Your task to perform on an android device: Go to settings Image 0: 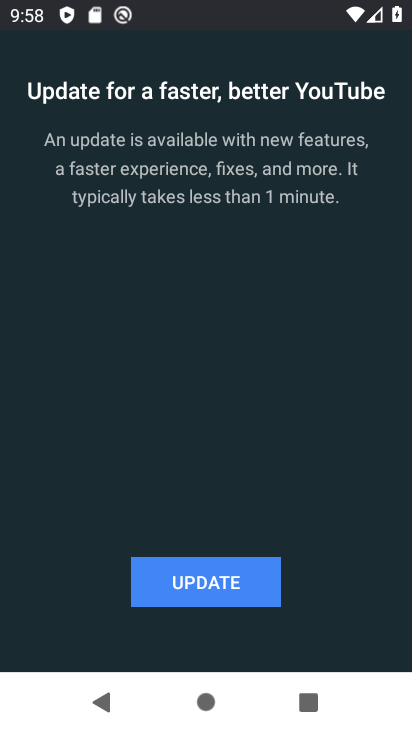
Step 0: press home button
Your task to perform on an android device: Go to settings Image 1: 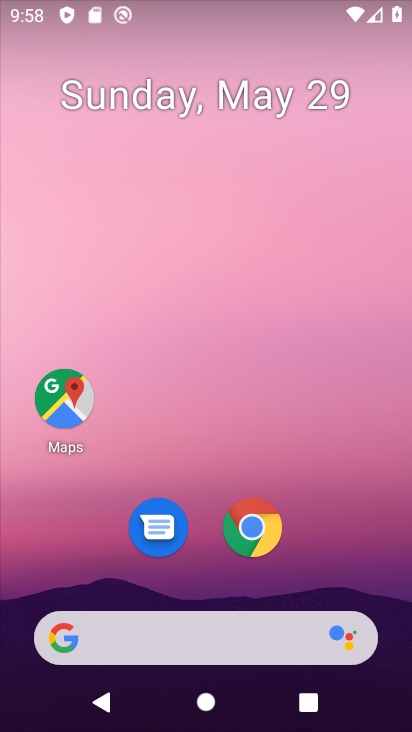
Step 1: drag from (337, 566) to (313, 219)
Your task to perform on an android device: Go to settings Image 2: 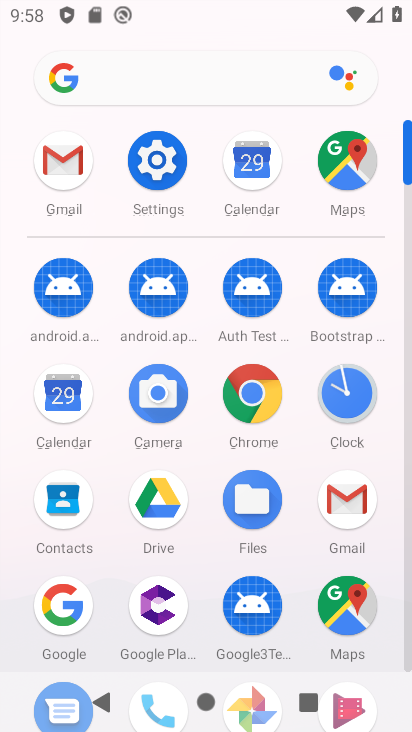
Step 2: click (168, 170)
Your task to perform on an android device: Go to settings Image 3: 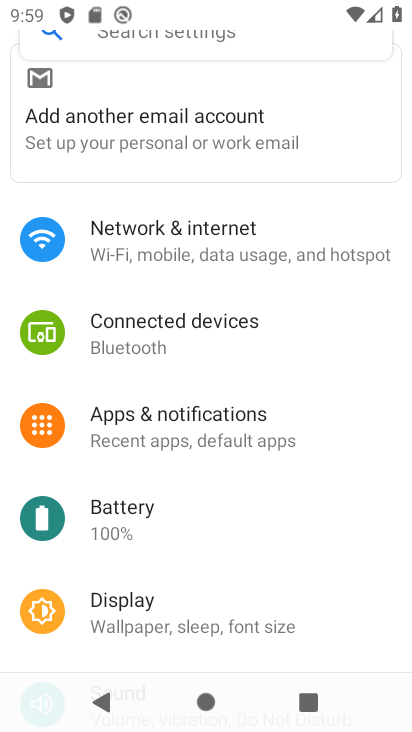
Step 3: task complete